Your task to perform on an android device: Open maps Image 0: 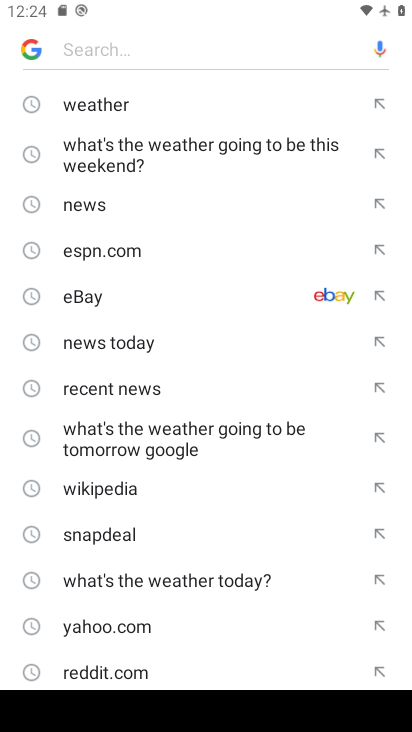
Step 0: press home button
Your task to perform on an android device: Open maps Image 1: 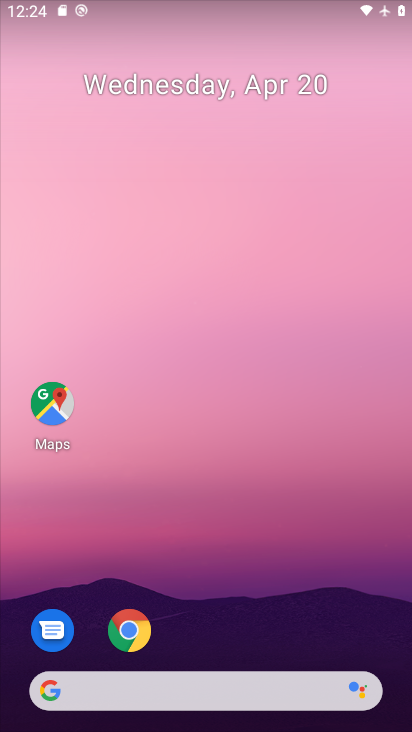
Step 1: drag from (203, 691) to (373, 90)
Your task to perform on an android device: Open maps Image 2: 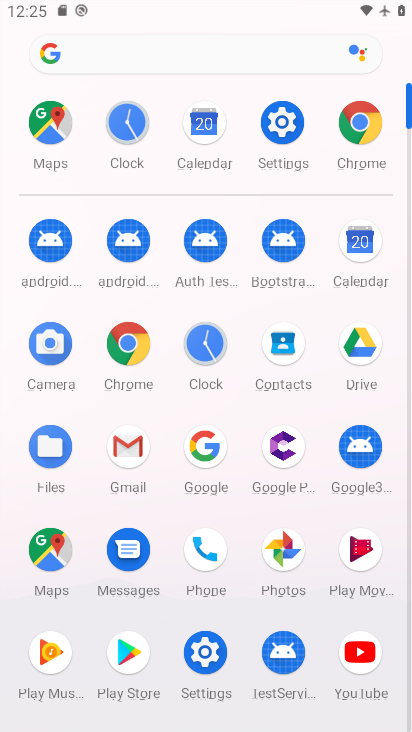
Step 2: click (49, 124)
Your task to perform on an android device: Open maps Image 3: 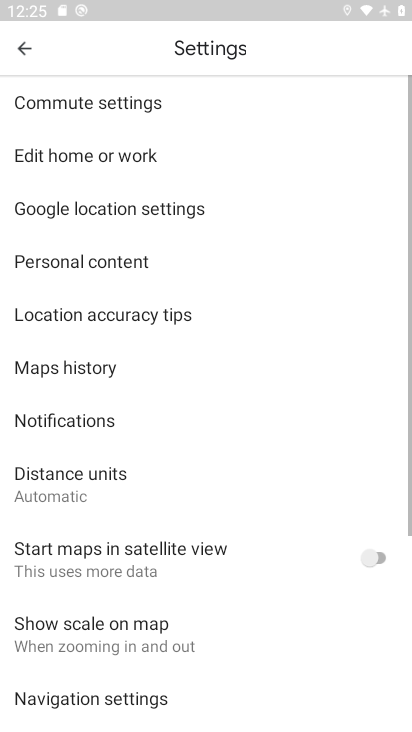
Step 3: click (25, 49)
Your task to perform on an android device: Open maps Image 4: 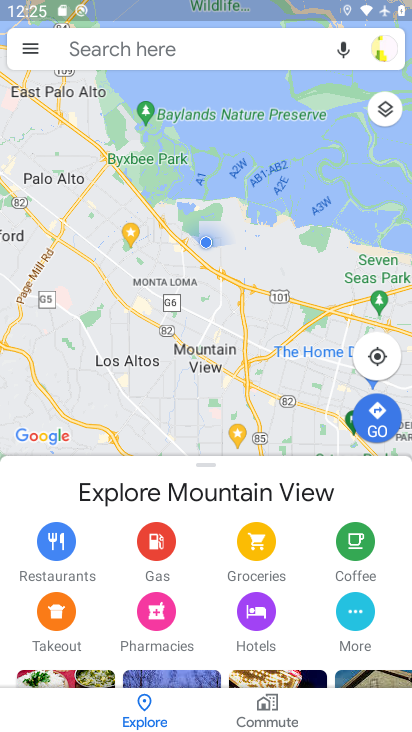
Step 4: task complete